Your task to perform on an android device: toggle javascript in the chrome app Image 0: 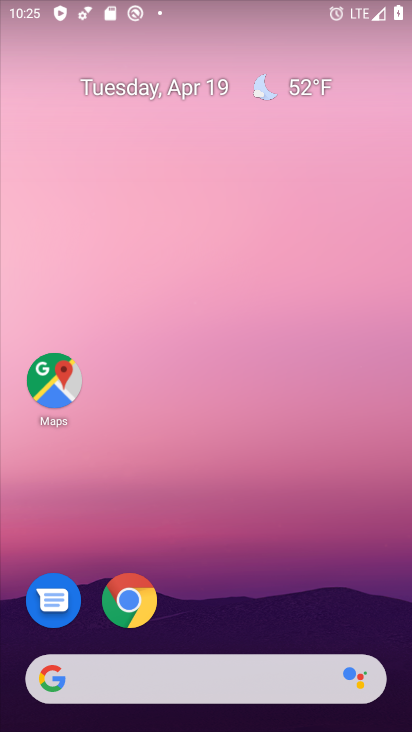
Step 0: drag from (249, 621) to (302, 148)
Your task to perform on an android device: toggle javascript in the chrome app Image 1: 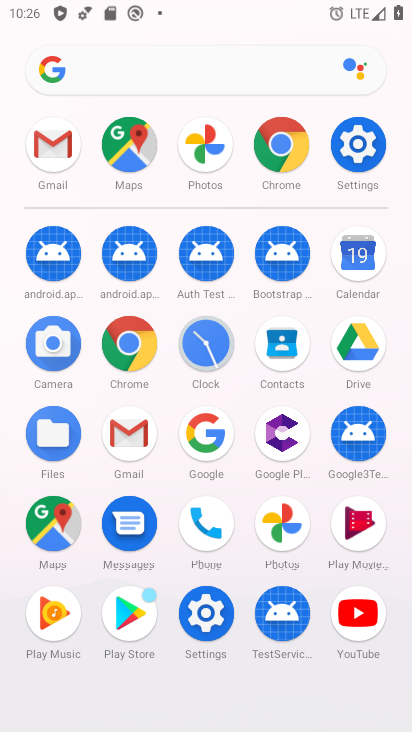
Step 1: click (273, 156)
Your task to perform on an android device: toggle javascript in the chrome app Image 2: 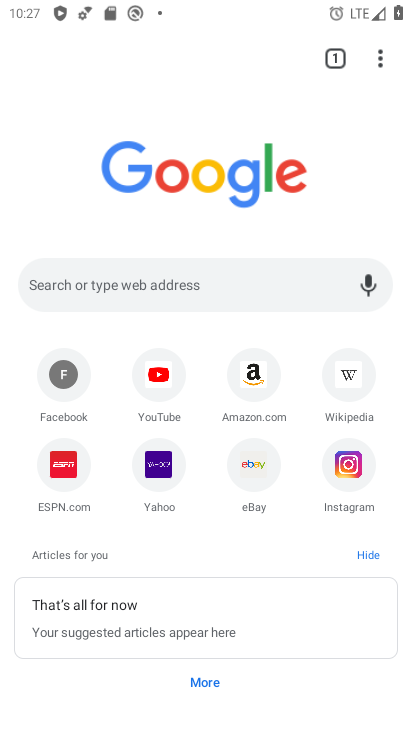
Step 2: click (379, 52)
Your task to perform on an android device: toggle javascript in the chrome app Image 3: 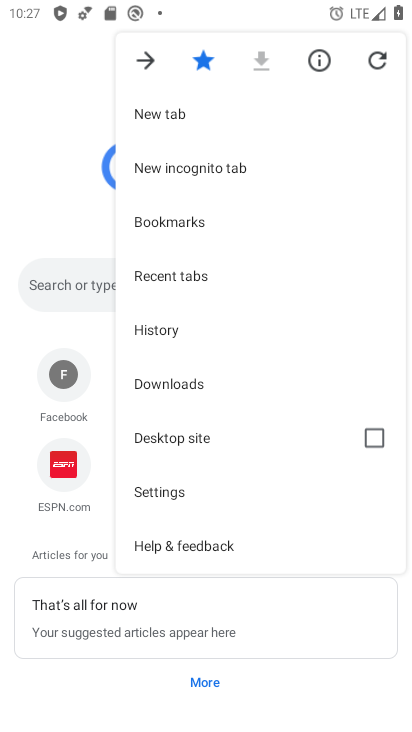
Step 3: click (160, 491)
Your task to perform on an android device: toggle javascript in the chrome app Image 4: 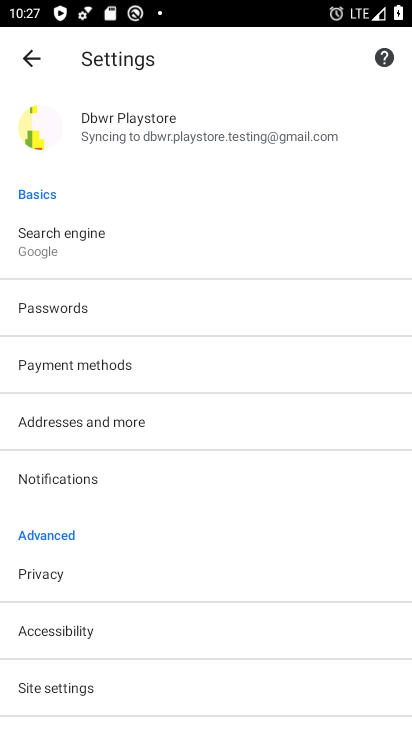
Step 4: click (159, 681)
Your task to perform on an android device: toggle javascript in the chrome app Image 5: 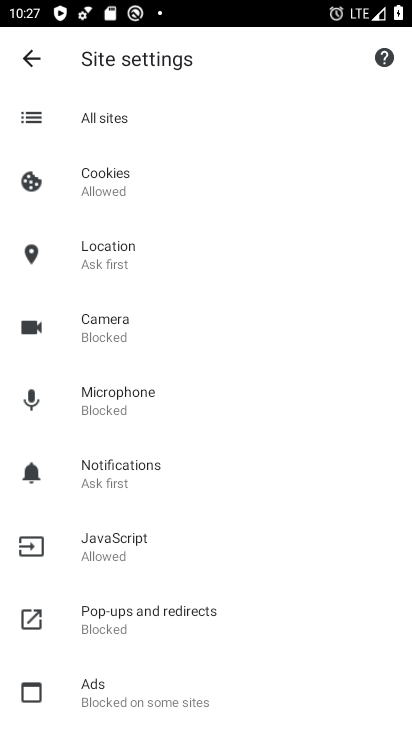
Step 5: click (190, 556)
Your task to perform on an android device: toggle javascript in the chrome app Image 6: 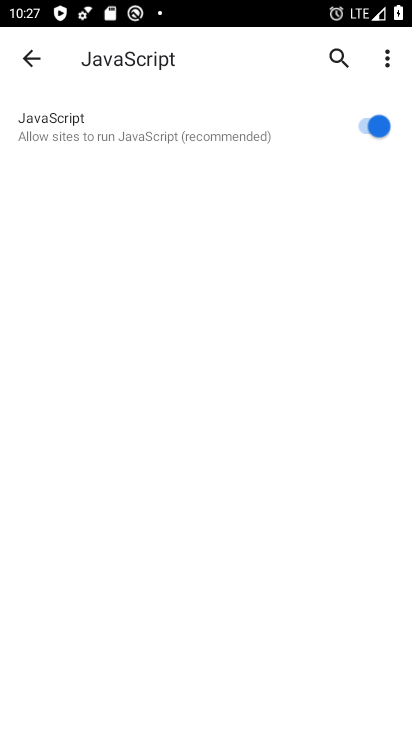
Step 6: click (359, 125)
Your task to perform on an android device: toggle javascript in the chrome app Image 7: 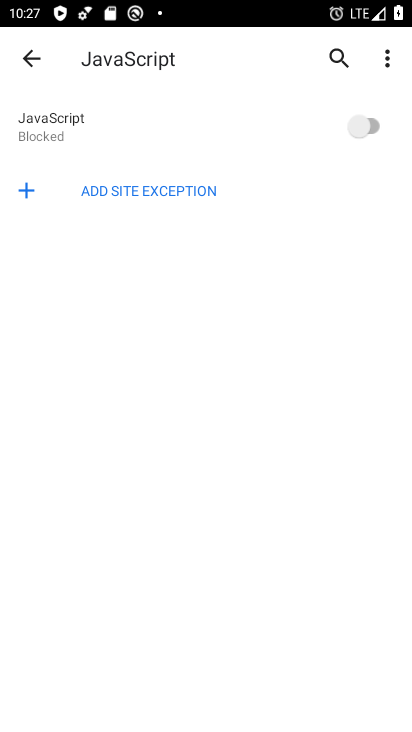
Step 7: task complete